Your task to perform on an android device: What is the speed of light? Image 0: 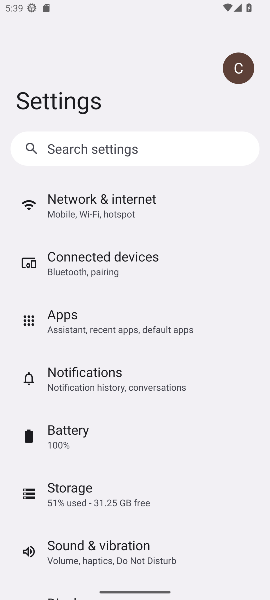
Step 0: press home button
Your task to perform on an android device: What is the speed of light? Image 1: 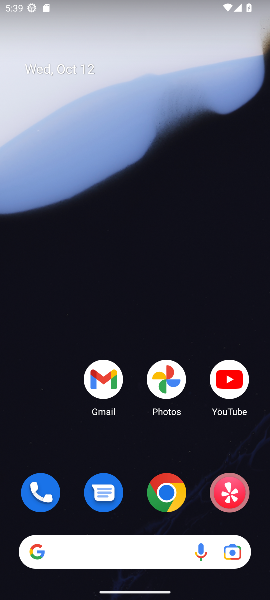
Step 1: click (169, 506)
Your task to perform on an android device: What is the speed of light? Image 2: 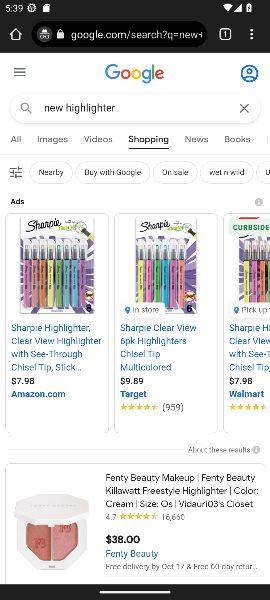
Step 2: click (246, 108)
Your task to perform on an android device: What is the speed of light? Image 3: 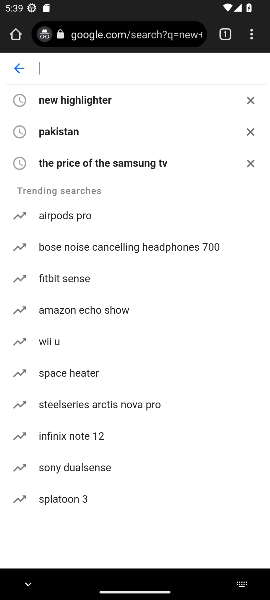
Step 3: click (80, 72)
Your task to perform on an android device: What is the speed of light? Image 4: 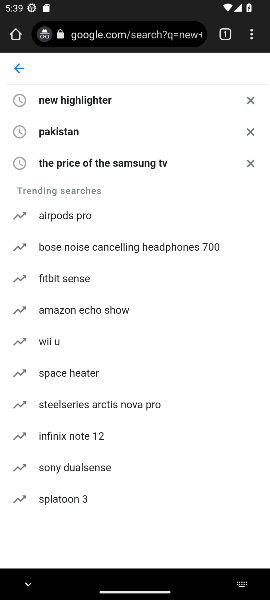
Step 4: type "What is the speed of light?"
Your task to perform on an android device: What is the speed of light? Image 5: 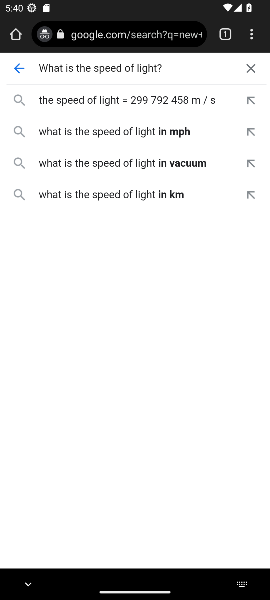
Step 5: click (109, 104)
Your task to perform on an android device: What is the speed of light? Image 6: 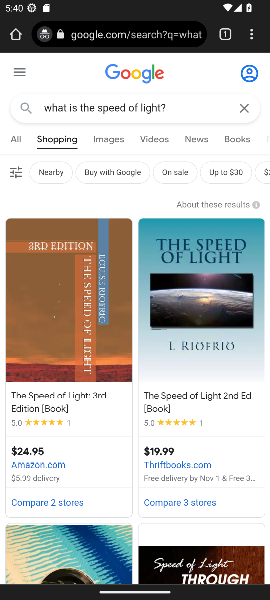
Step 6: click (11, 137)
Your task to perform on an android device: What is the speed of light? Image 7: 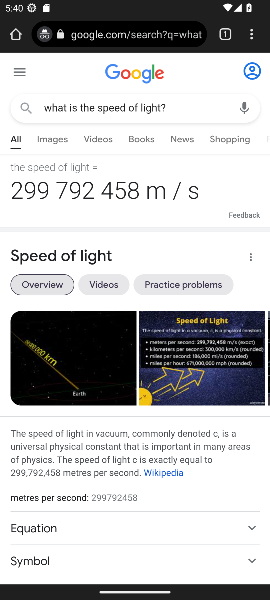
Step 7: task complete